Your task to perform on an android device: Search for sushi restaurants on Maps Image 0: 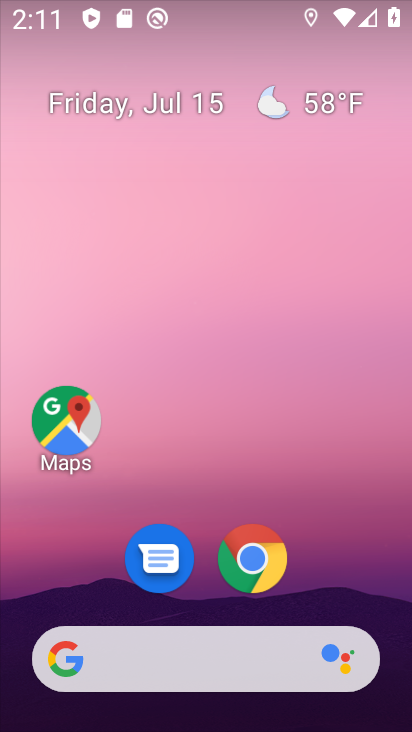
Step 0: drag from (338, 578) to (344, 113)
Your task to perform on an android device: Search for sushi restaurants on Maps Image 1: 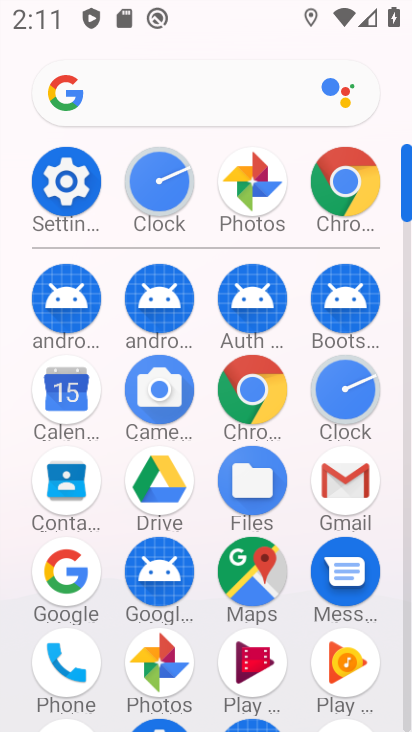
Step 1: click (258, 573)
Your task to perform on an android device: Search for sushi restaurants on Maps Image 2: 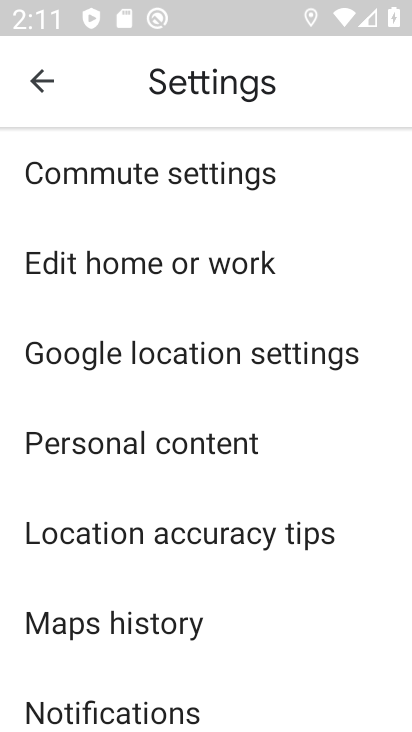
Step 2: press back button
Your task to perform on an android device: Search for sushi restaurants on Maps Image 3: 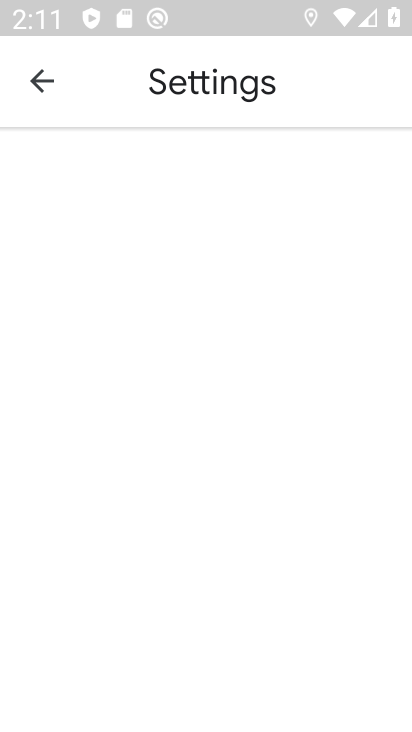
Step 3: press back button
Your task to perform on an android device: Search for sushi restaurants on Maps Image 4: 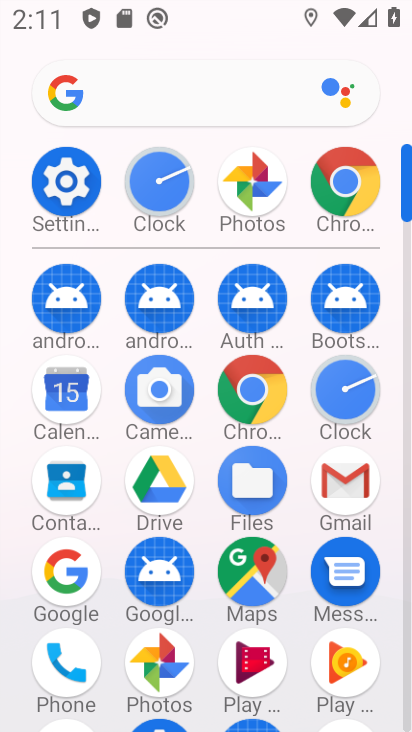
Step 4: click (259, 574)
Your task to perform on an android device: Search for sushi restaurants on Maps Image 5: 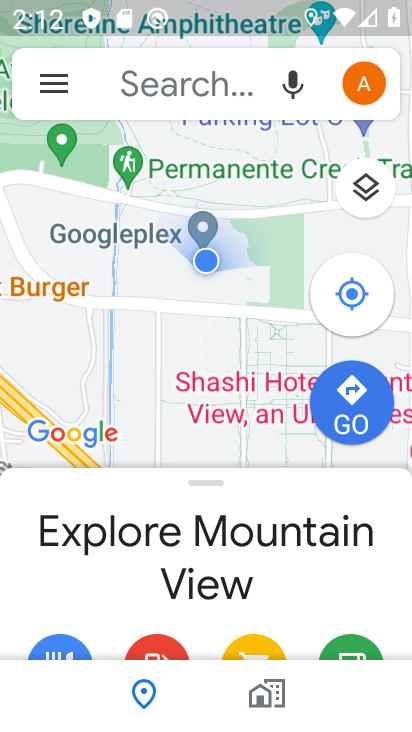
Step 5: click (197, 97)
Your task to perform on an android device: Search for sushi restaurants on Maps Image 6: 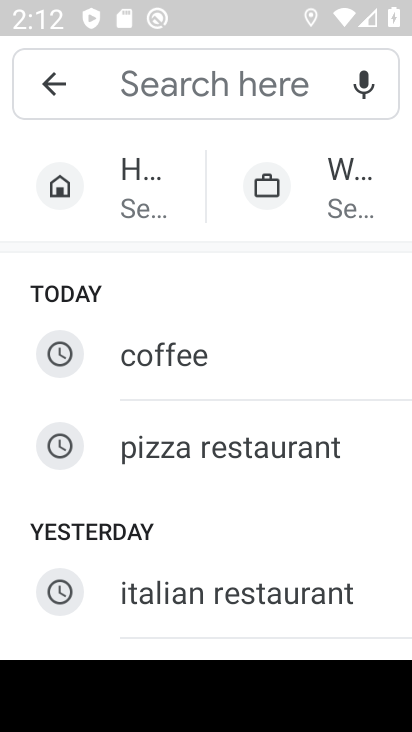
Step 6: type "sushi restaurants"
Your task to perform on an android device: Search for sushi restaurants on Maps Image 7: 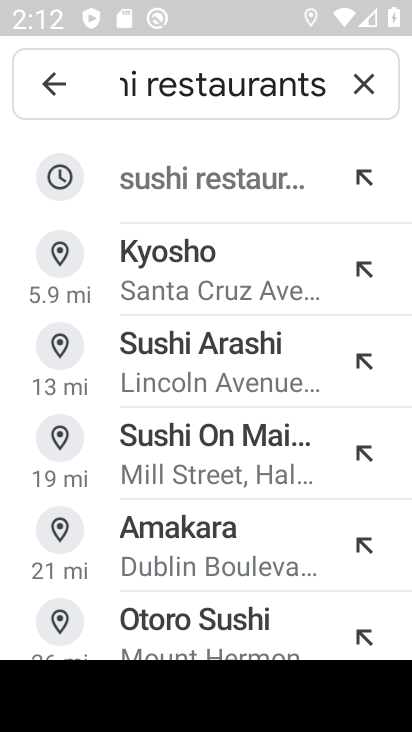
Step 7: click (295, 206)
Your task to perform on an android device: Search for sushi restaurants on Maps Image 8: 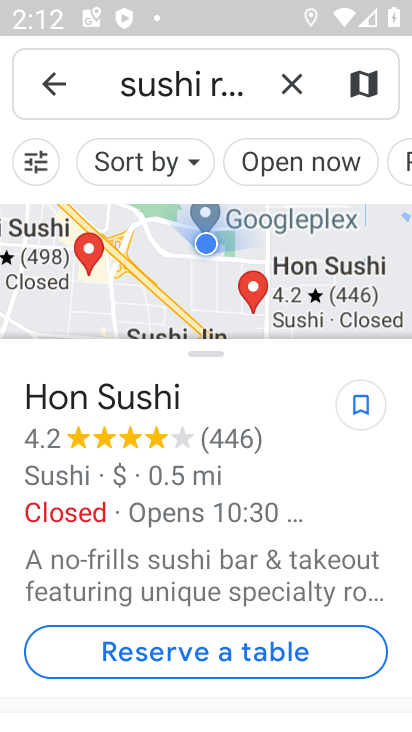
Step 8: task complete